Your task to perform on an android device: Open the phone app and click the voicemail tab. Image 0: 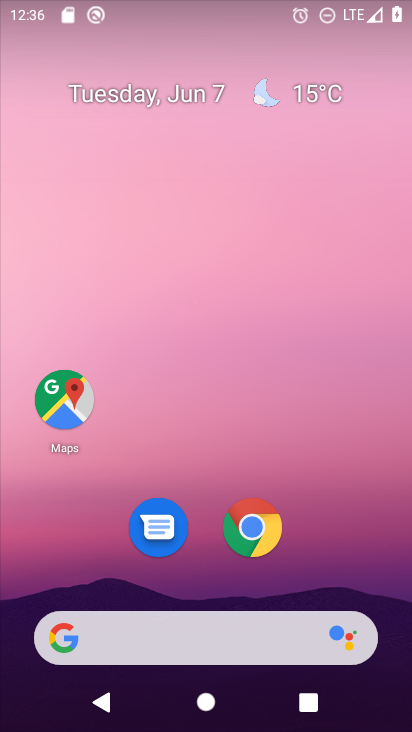
Step 0: drag from (375, 576) to (393, 182)
Your task to perform on an android device: Open the phone app and click the voicemail tab. Image 1: 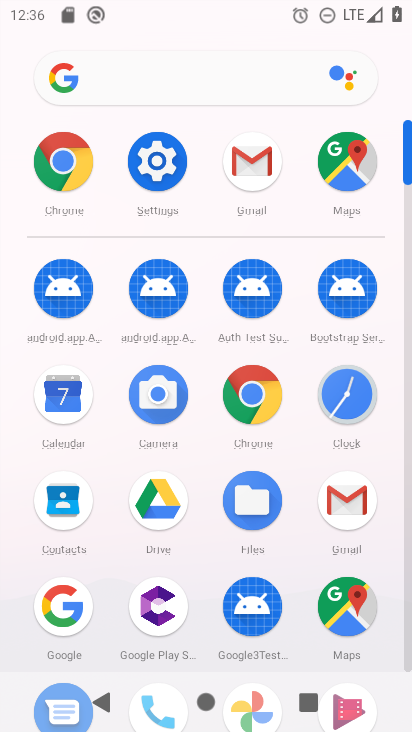
Step 1: drag from (298, 540) to (292, 181)
Your task to perform on an android device: Open the phone app and click the voicemail tab. Image 2: 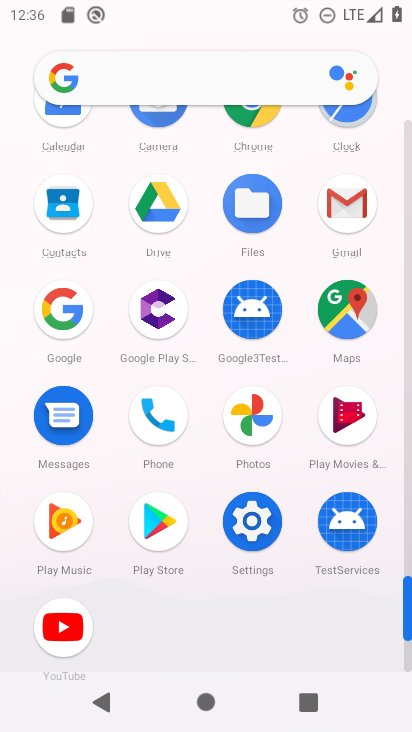
Step 2: click (353, 421)
Your task to perform on an android device: Open the phone app and click the voicemail tab. Image 3: 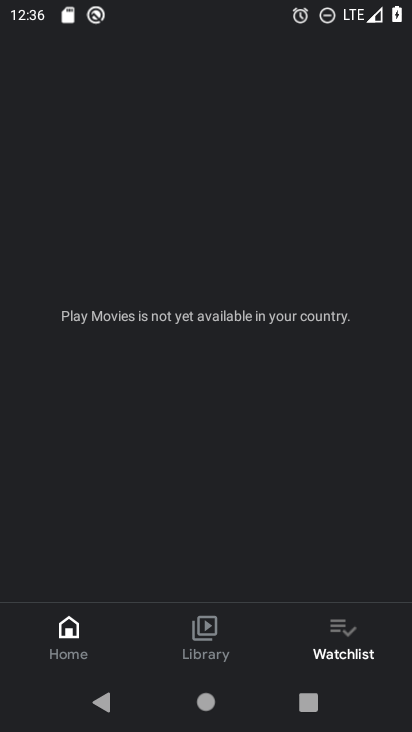
Step 3: press home button
Your task to perform on an android device: Open the phone app and click the voicemail tab. Image 4: 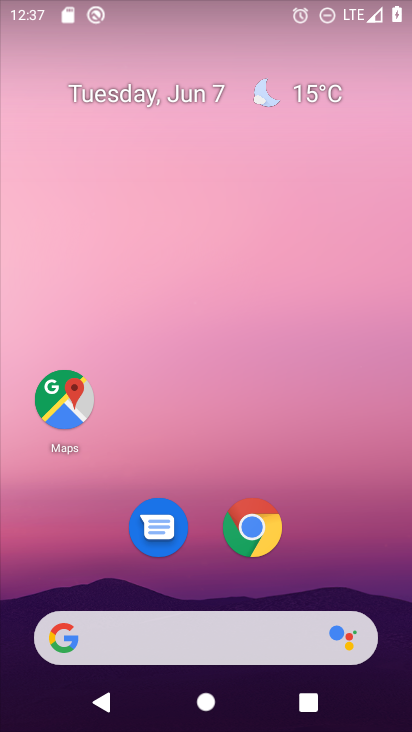
Step 4: drag from (360, 551) to (361, 91)
Your task to perform on an android device: Open the phone app and click the voicemail tab. Image 5: 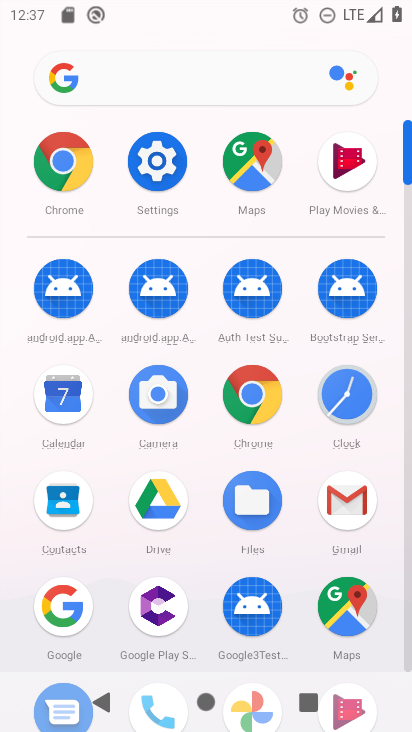
Step 5: drag from (195, 563) to (200, 291)
Your task to perform on an android device: Open the phone app and click the voicemail tab. Image 6: 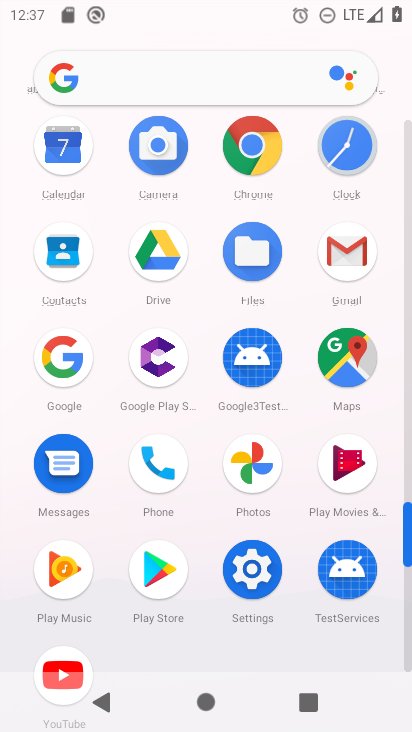
Step 6: click (156, 475)
Your task to perform on an android device: Open the phone app and click the voicemail tab. Image 7: 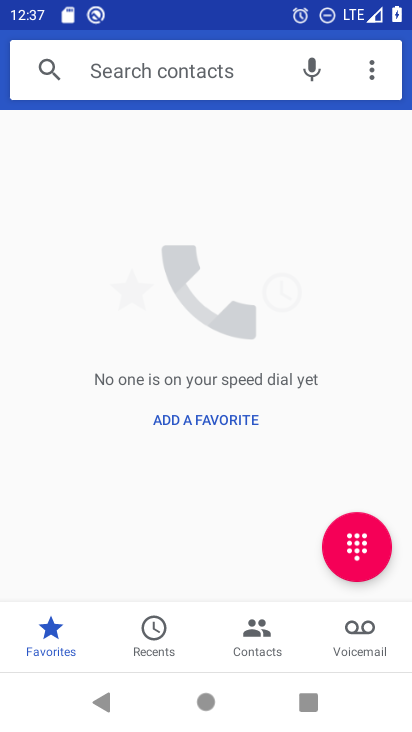
Step 7: click (351, 633)
Your task to perform on an android device: Open the phone app and click the voicemail tab. Image 8: 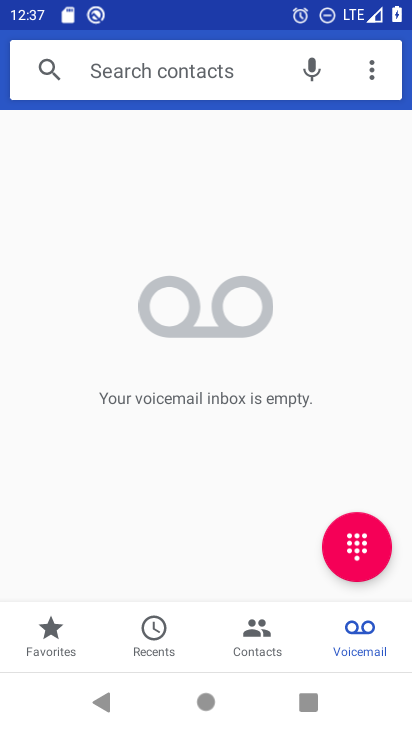
Step 8: task complete